Your task to perform on an android device: What's the weather? Image 0: 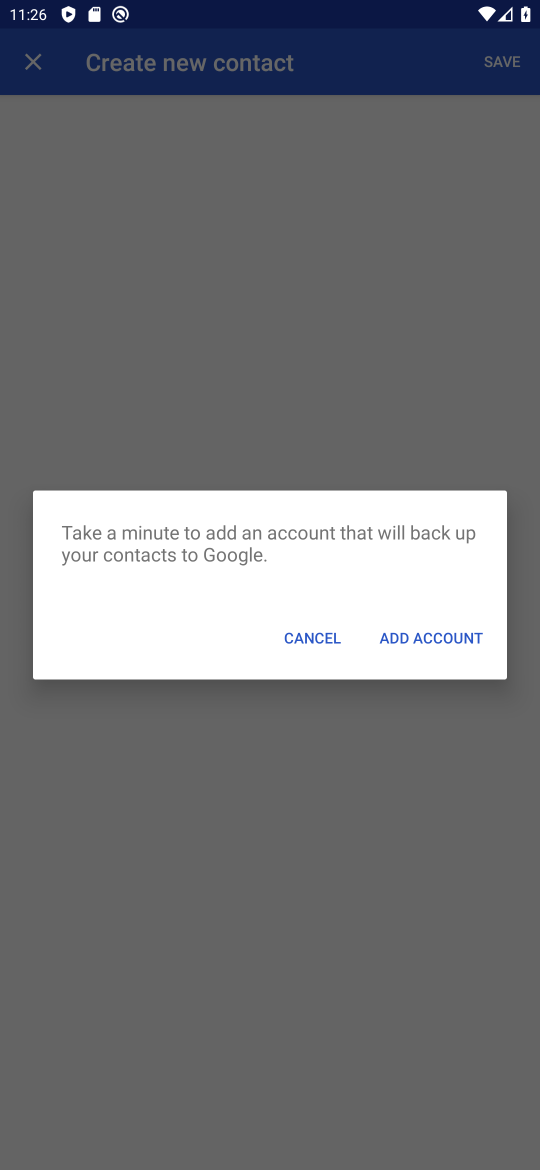
Step 0: press home button
Your task to perform on an android device: What's the weather? Image 1: 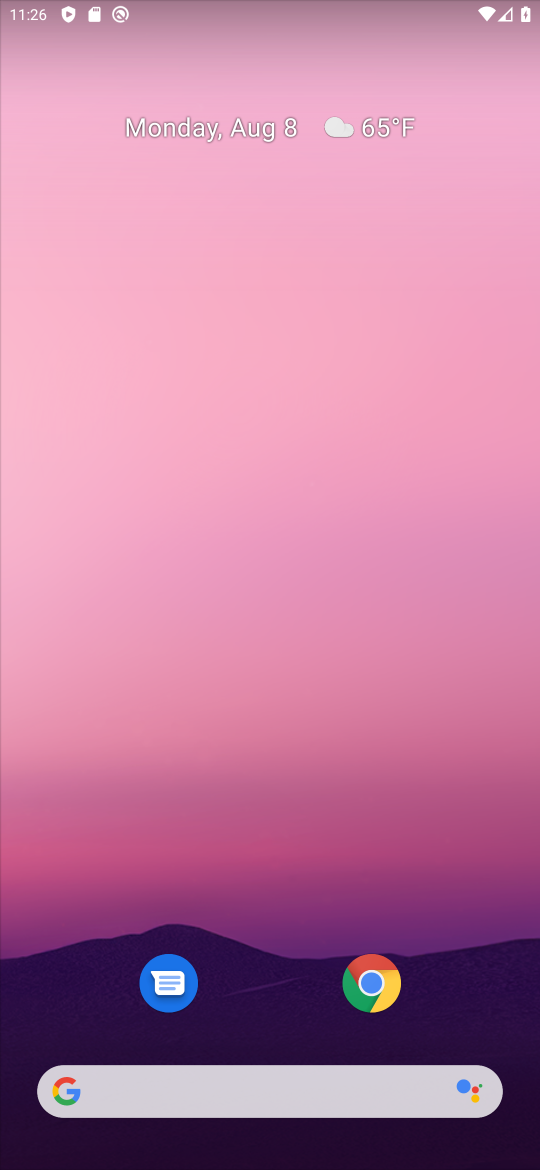
Step 1: click (267, 1104)
Your task to perform on an android device: What's the weather? Image 2: 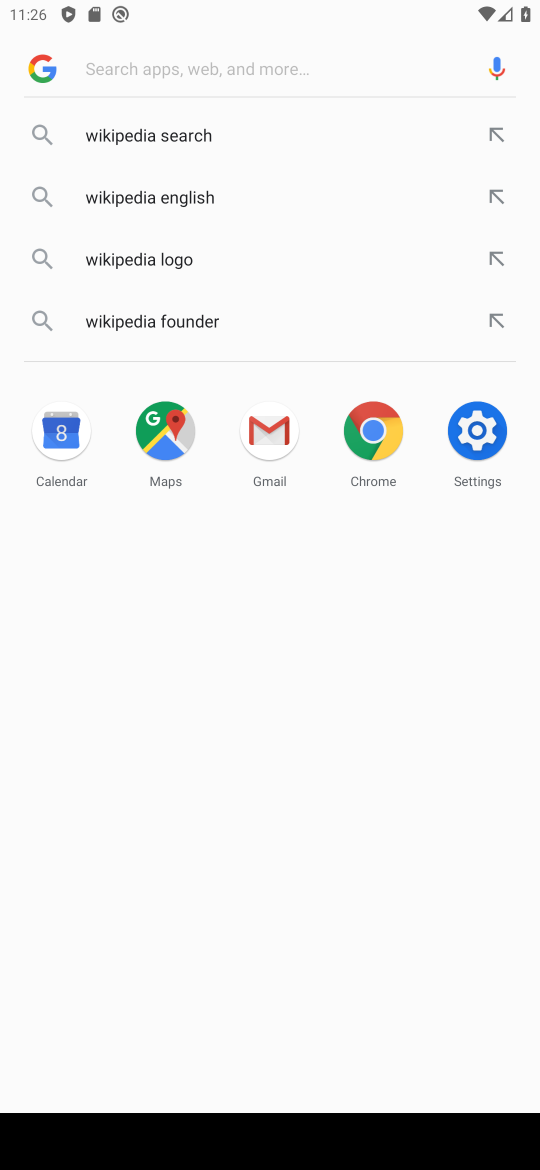
Step 2: type "weather"
Your task to perform on an android device: What's the weather? Image 3: 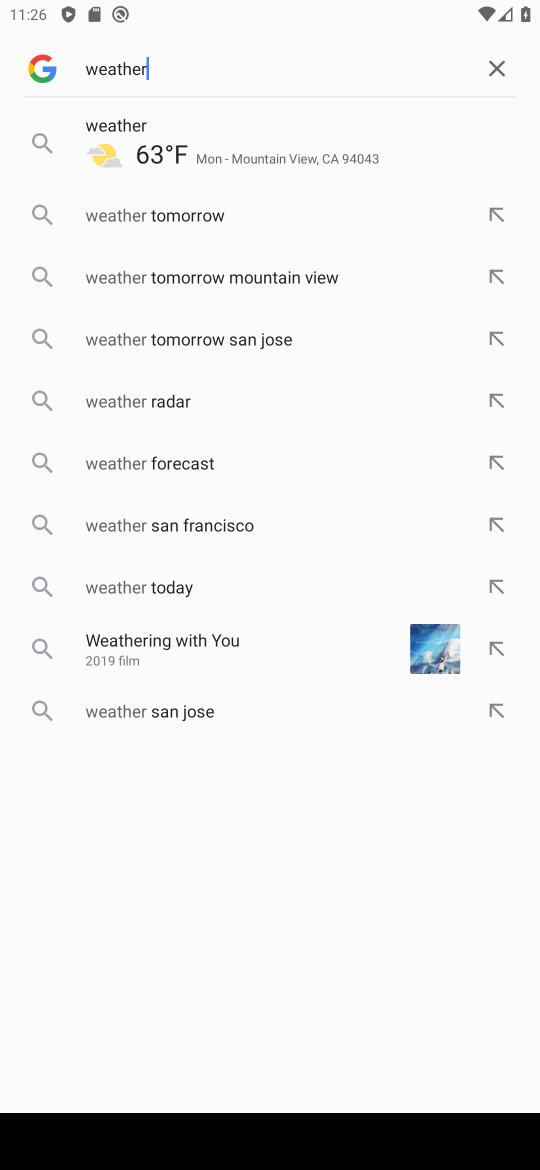
Step 3: click (88, 156)
Your task to perform on an android device: What's the weather? Image 4: 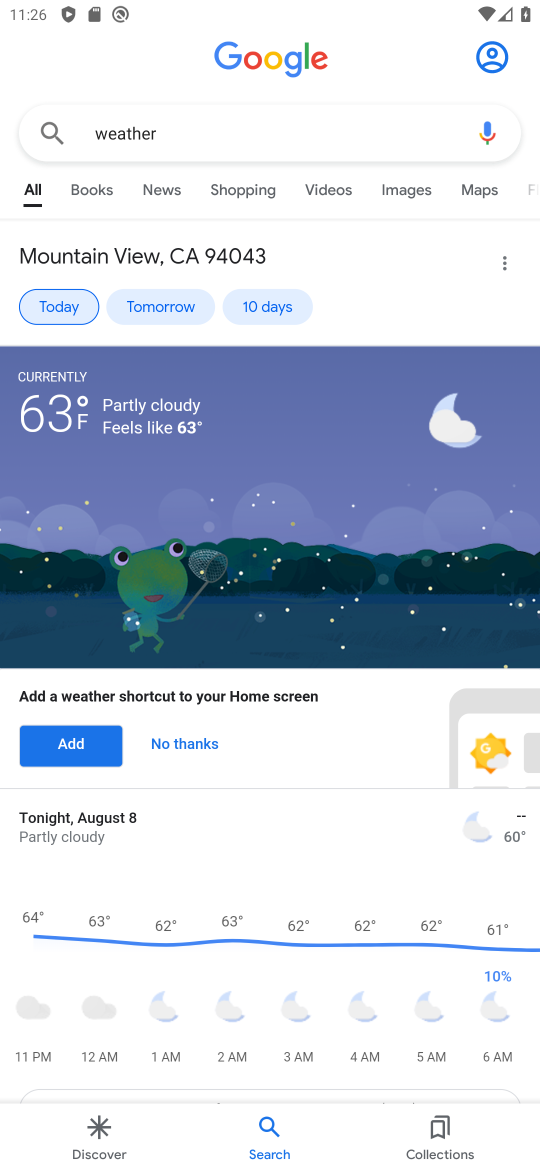
Step 4: task complete